Your task to perform on an android device: Go to Amazon Image 0: 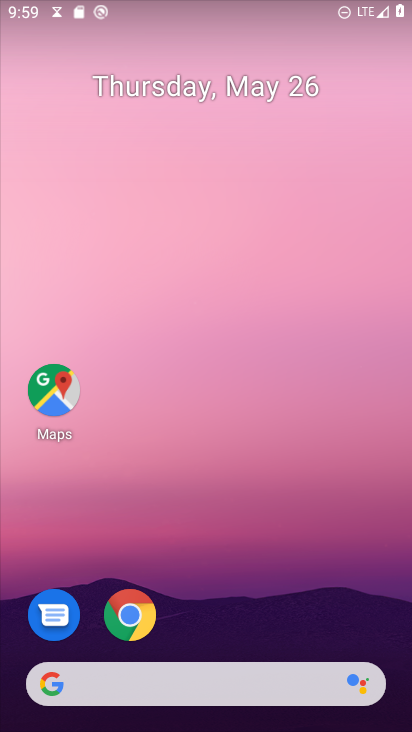
Step 0: click (119, 614)
Your task to perform on an android device: Go to Amazon Image 1: 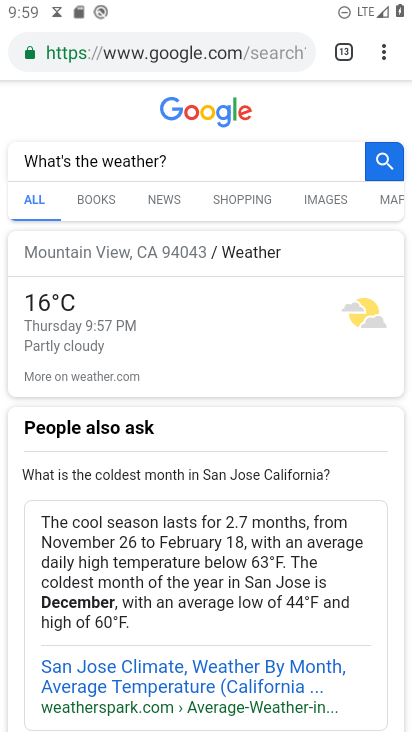
Step 1: click (377, 56)
Your task to perform on an android device: Go to Amazon Image 2: 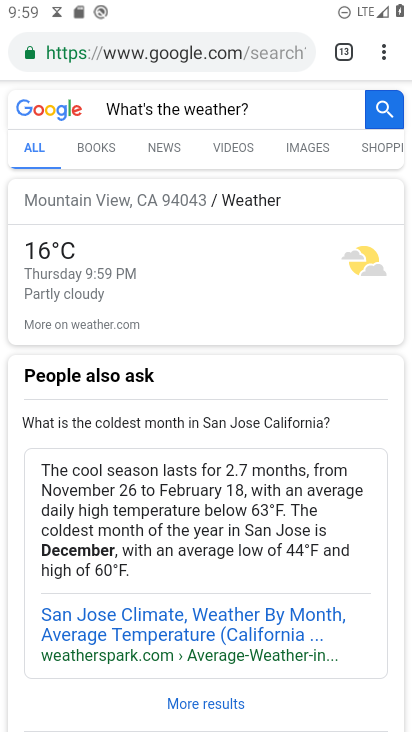
Step 2: click (366, 40)
Your task to perform on an android device: Go to Amazon Image 3: 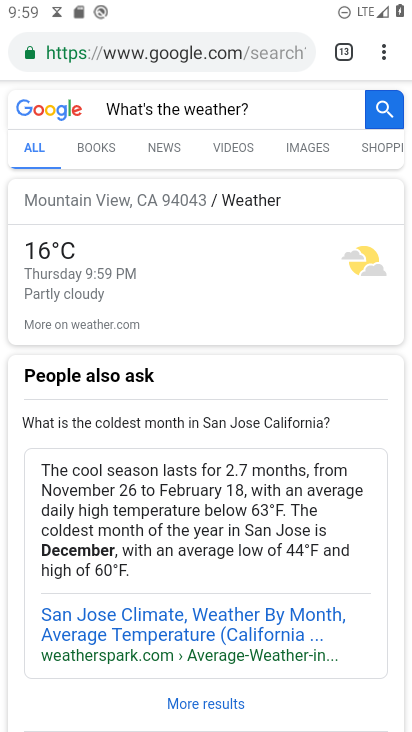
Step 3: click (376, 45)
Your task to perform on an android device: Go to Amazon Image 4: 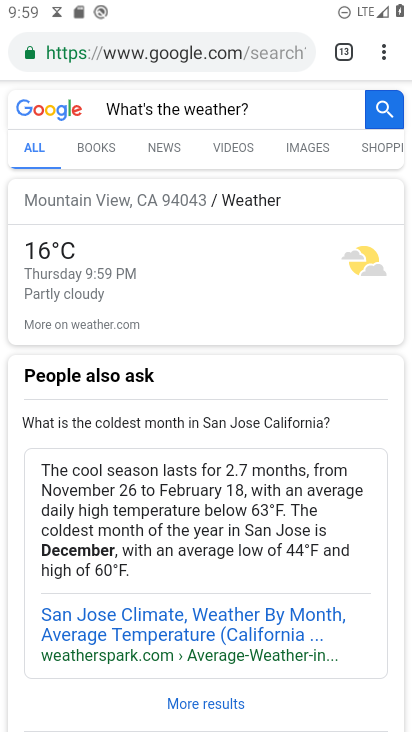
Step 4: click (389, 44)
Your task to perform on an android device: Go to Amazon Image 5: 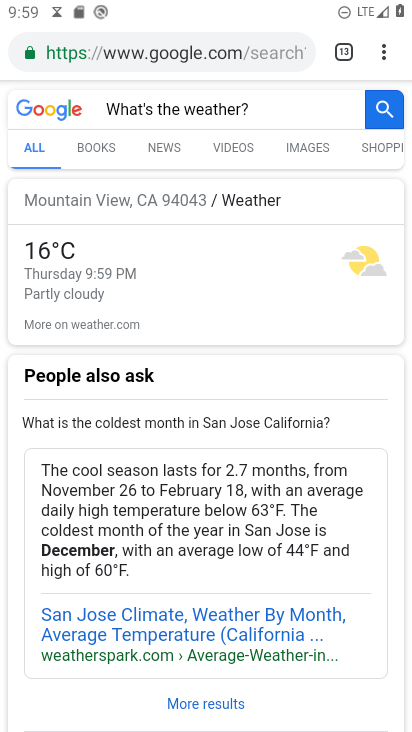
Step 5: click (382, 60)
Your task to perform on an android device: Go to Amazon Image 6: 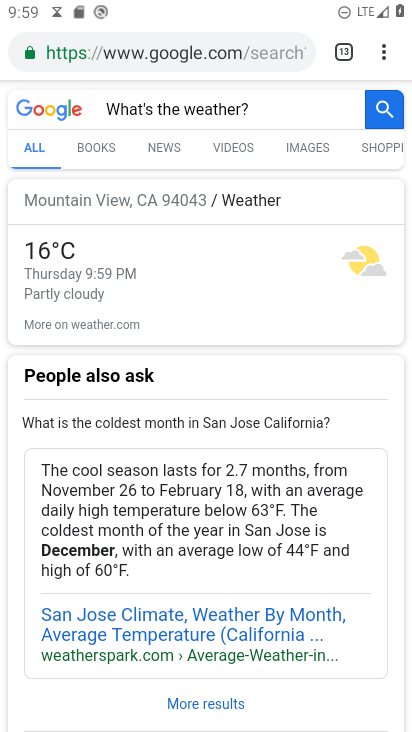
Step 6: click (381, 51)
Your task to perform on an android device: Go to Amazon Image 7: 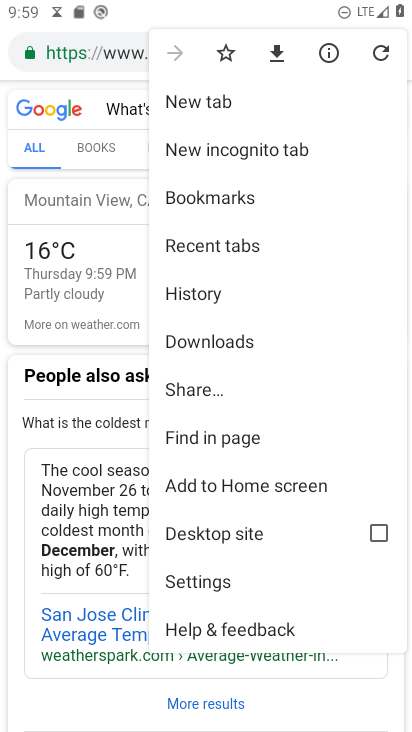
Step 7: click (215, 108)
Your task to perform on an android device: Go to Amazon Image 8: 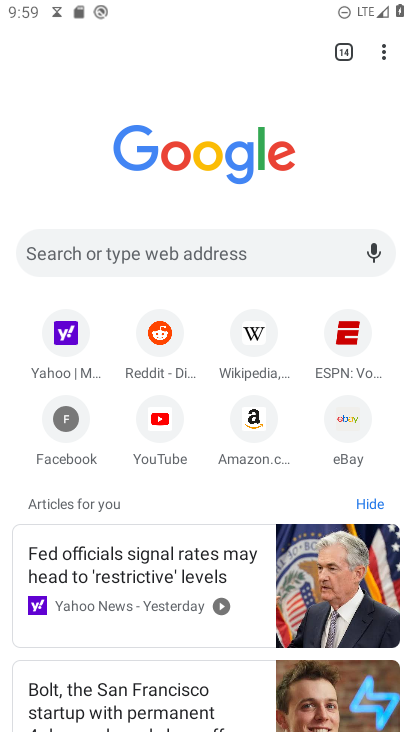
Step 8: click (258, 414)
Your task to perform on an android device: Go to Amazon Image 9: 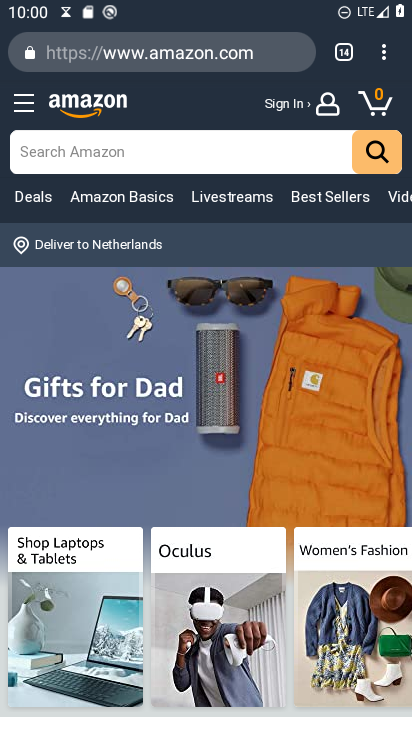
Step 9: task complete